Your task to perform on an android device: Open Maps and search for coffee Image 0: 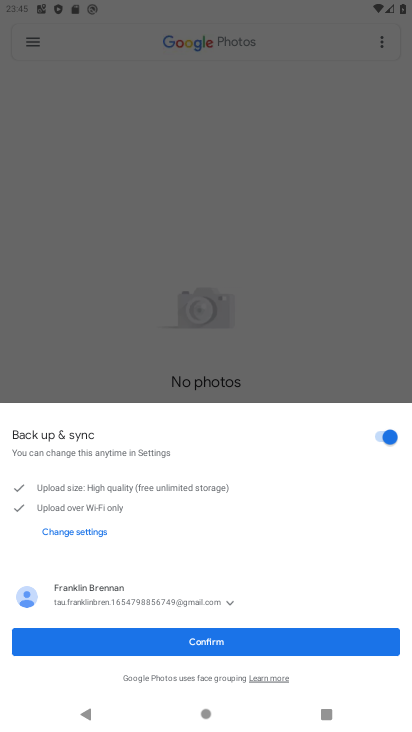
Step 0: press home button
Your task to perform on an android device: Open Maps and search for coffee Image 1: 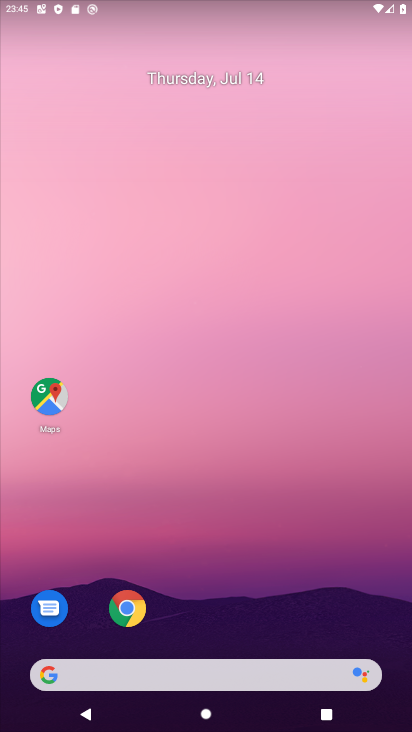
Step 1: click (38, 398)
Your task to perform on an android device: Open Maps and search for coffee Image 2: 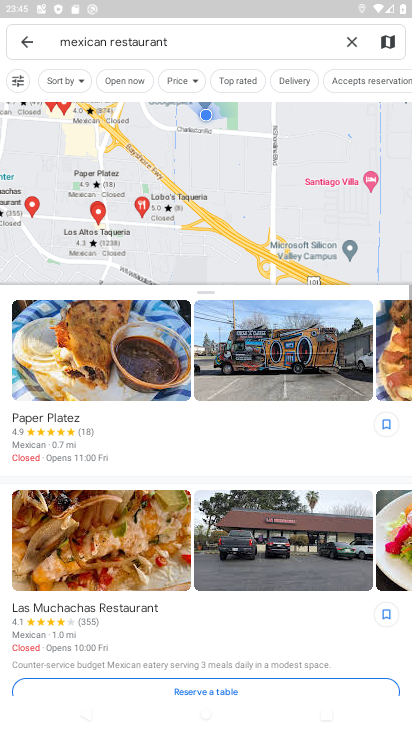
Step 2: click (353, 39)
Your task to perform on an android device: Open Maps and search for coffee Image 3: 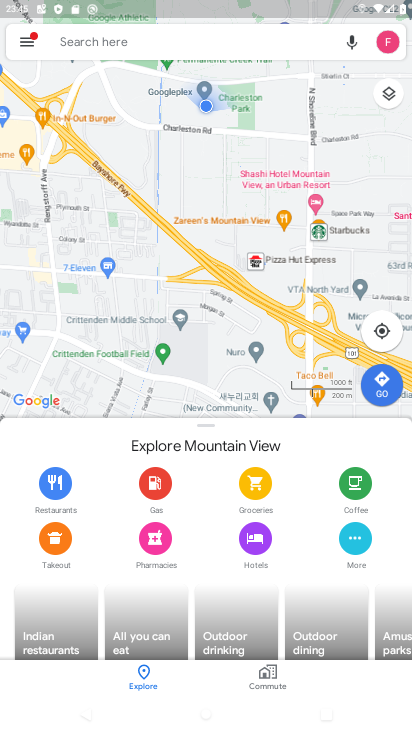
Step 3: click (353, 41)
Your task to perform on an android device: Open Maps and search for coffee Image 4: 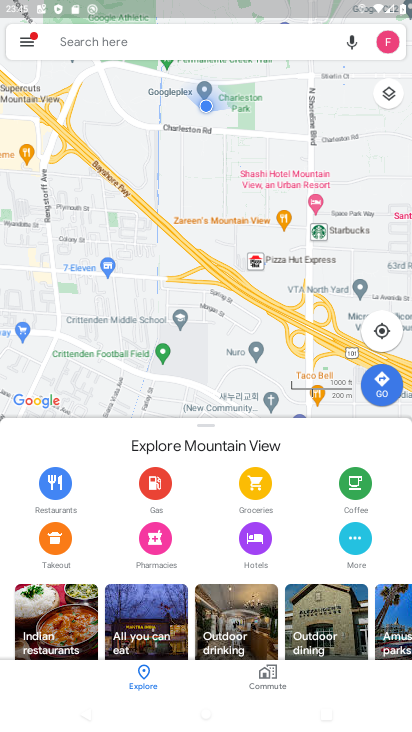
Step 4: click (127, 35)
Your task to perform on an android device: Open Maps and search for coffee Image 5: 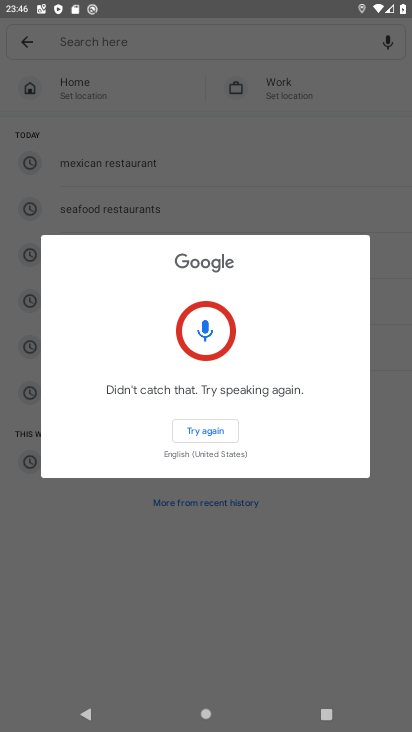
Step 5: task complete